Your task to perform on an android device: Find coffee shops on Maps Image 0: 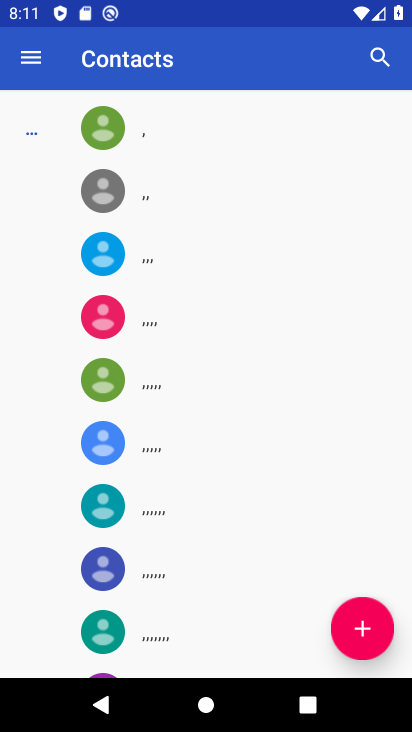
Step 0: press home button
Your task to perform on an android device: Find coffee shops on Maps Image 1: 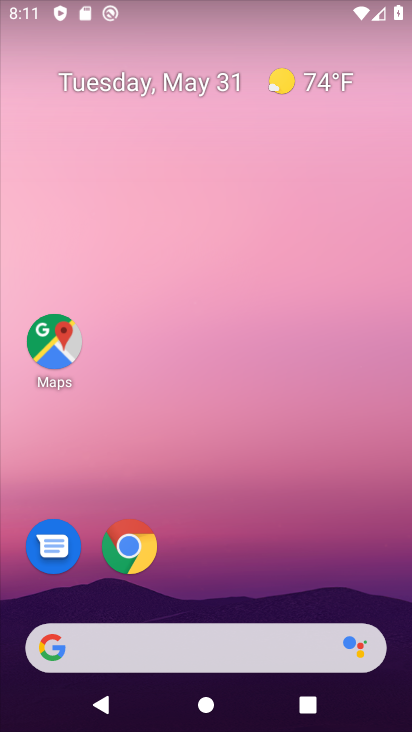
Step 1: click (54, 343)
Your task to perform on an android device: Find coffee shops on Maps Image 2: 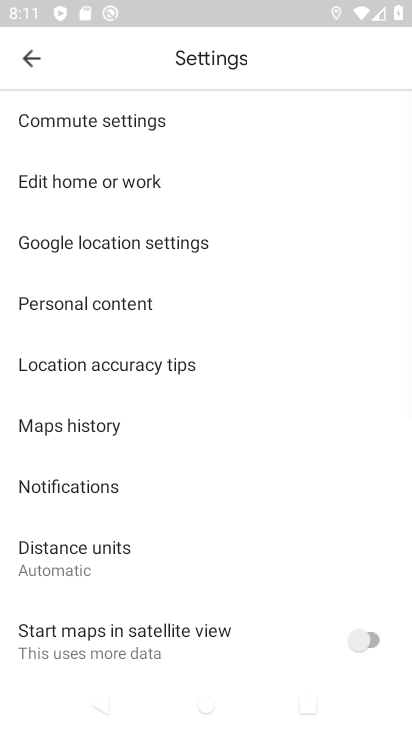
Step 2: press back button
Your task to perform on an android device: Find coffee shops on Maps Image 3: 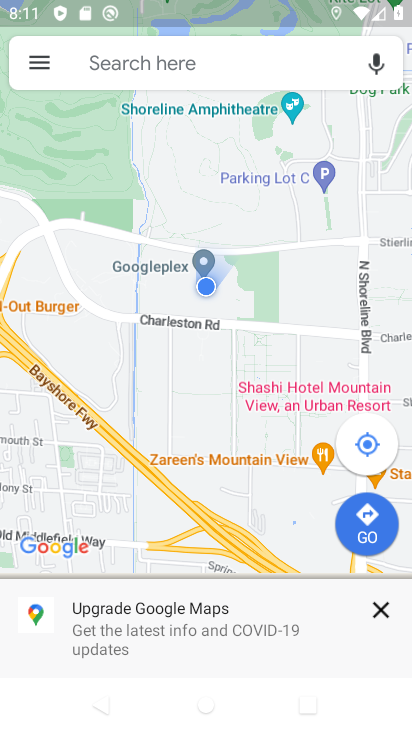
Step 3: click (182, 70)
Your task to perform on an android device: Find coffee shops on Maps Image 4: 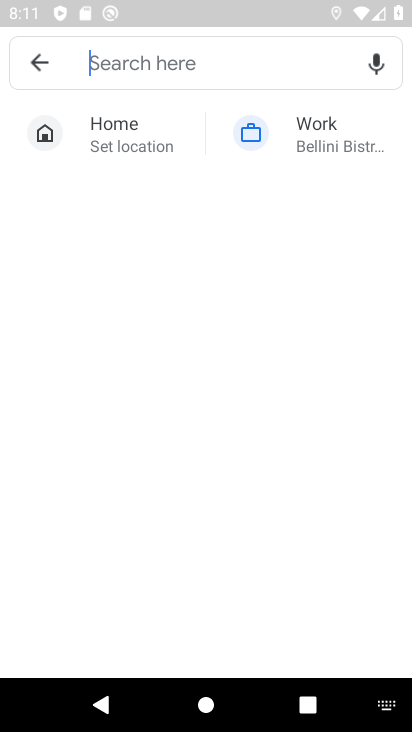
Step 4: type "coffee"
Your task to perform on an android device: Find coffee shops on Maps Image 5: 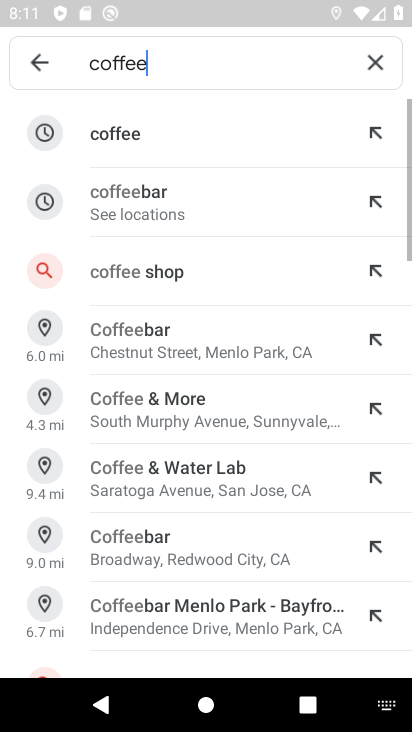
Step 5: click (124, 141)
Your task to perform on an android device: Find coffee shops on Maps Image 6: 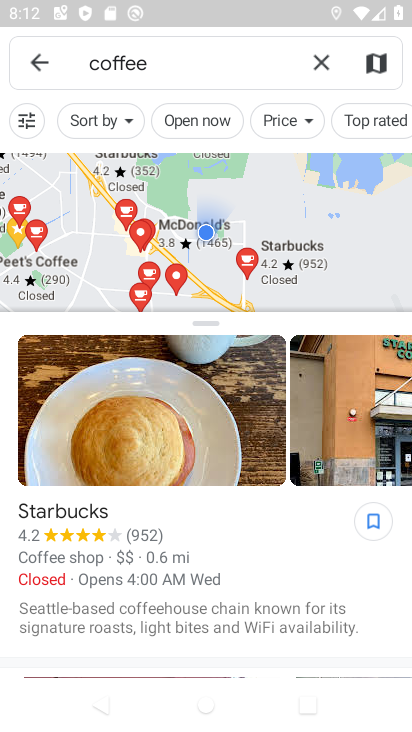
Step 6: task complete